Your task to perform on an android device: turn on data saver in the chrome app Image 0: 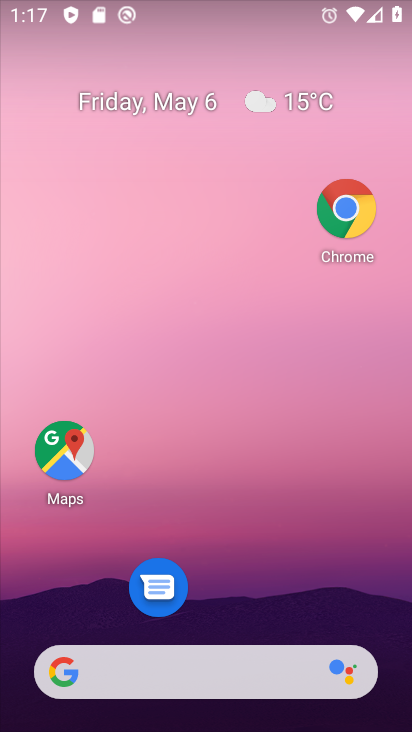
Step 0: drag from (298, 554) to (315, 70)
Your task to perform on an android device: turn on data saver in the chrome app Image 1: 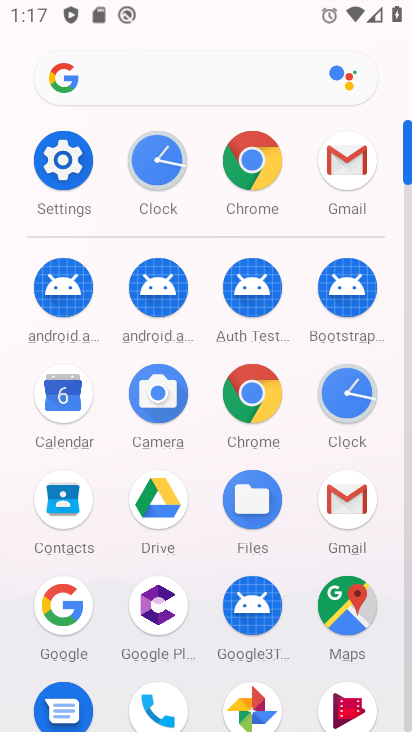
Step 1: click (245, 420)
Your task to perform on an android device: turn on data saver in the chrome app Image 2: 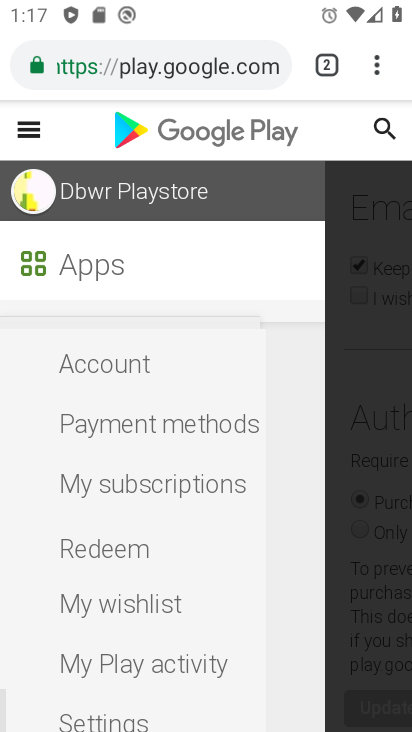
Step 2: click (383, 73)
Your task to perform on an android device: turn on data saver in the chrome app Image 3: 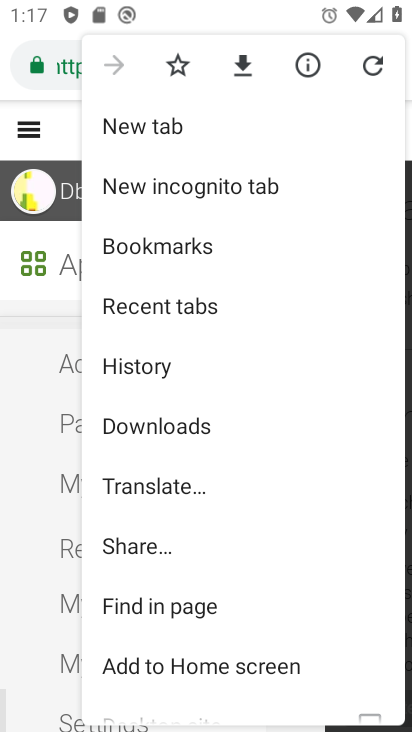
Step 3: drag from (252, 463) to (291, 218)
Your task to perform on an android device: turn on data saver in the chrome app Image 4: 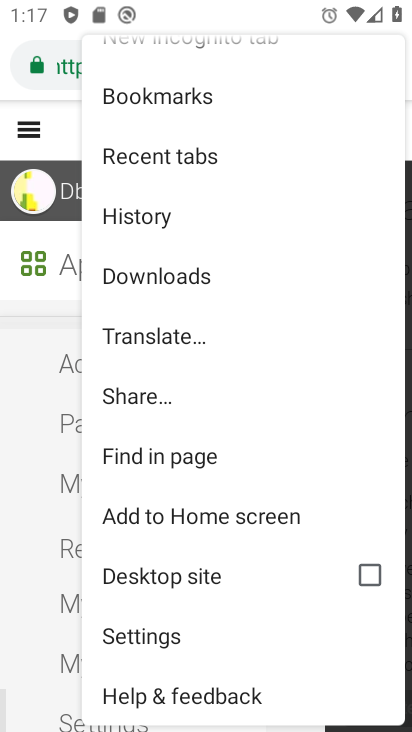
Step 4: click (151, 636)
Your task to perform on an android device: turn on data saver in the chrome app Image 5: 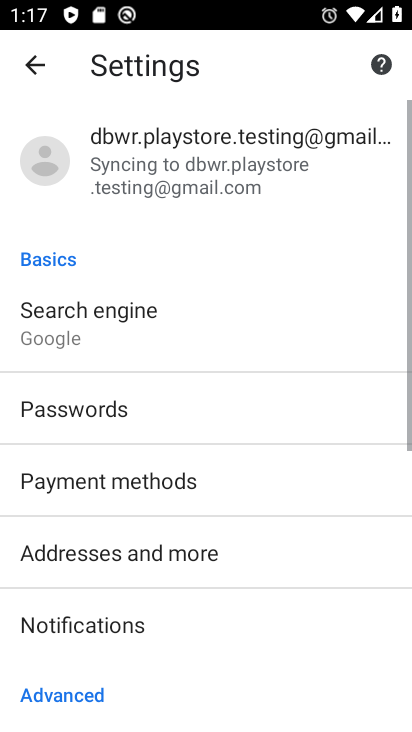
Step 5: drag from (169, 650) to (226, 229)
Your task to perform on an android device: turn on data saver in the chrome app Image 6: 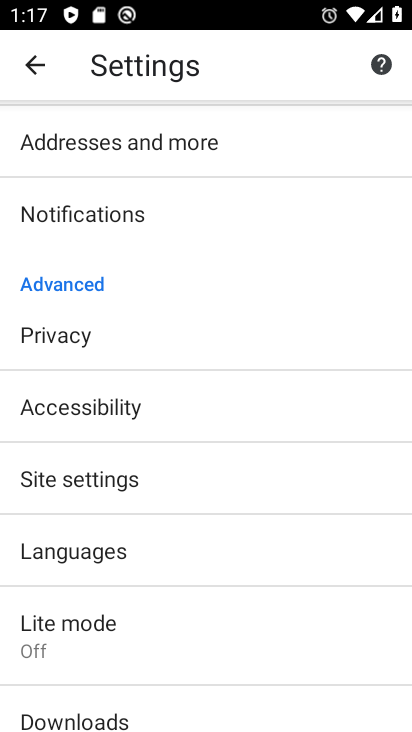
Step 6: click (88, 633)
Your task to perform on an android device: turn on data saver in the chrome app Image 7: 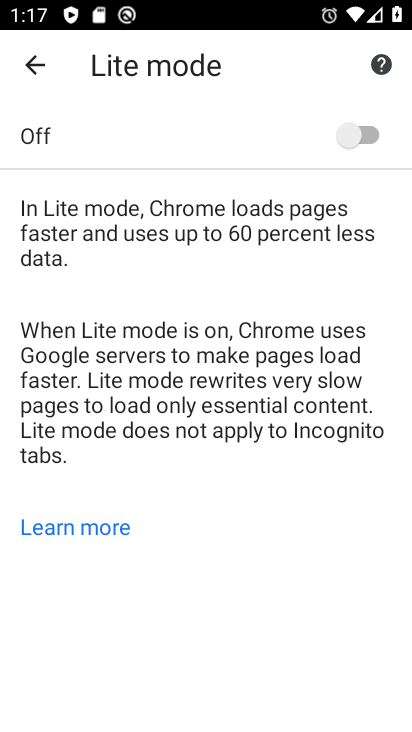
Step 7: click (366, 138)
Your task to perform on an android device: turn on data saver in the chrome app Image 8: 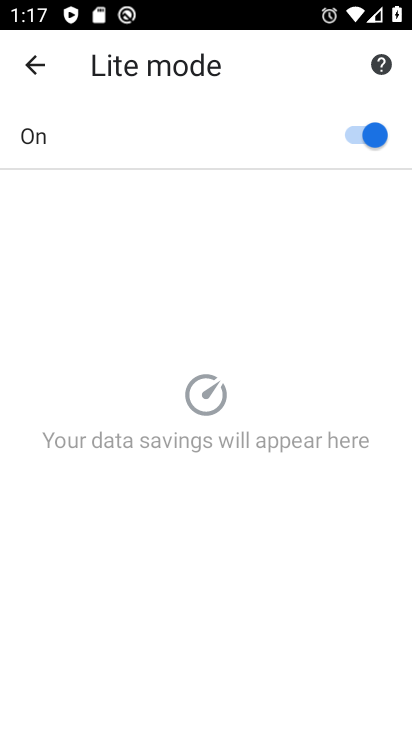
Step 8: task complete